Your task to perform on an android device: Open Google Maps Image 0: 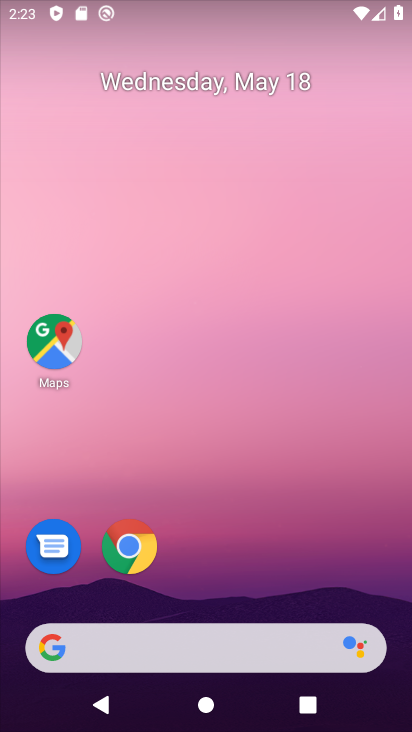
Step 0: drag from (276, 500) to (292, 5)
Your task to perform on an android device: Open Google Maps Image 1: 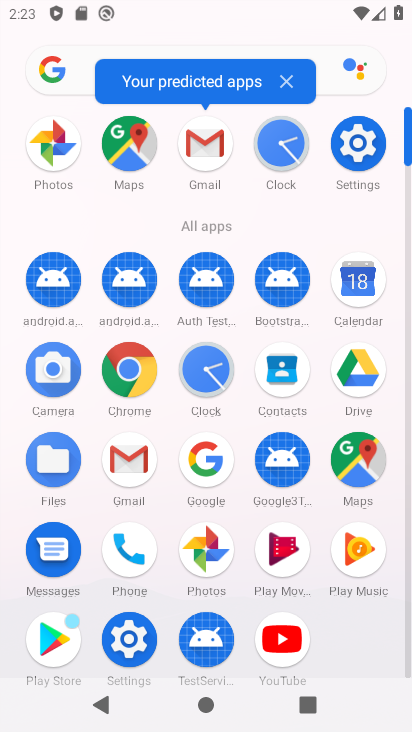
Step 1: click (124, 152)
Your task to perform on an android device: Open Google Maps Image 2: 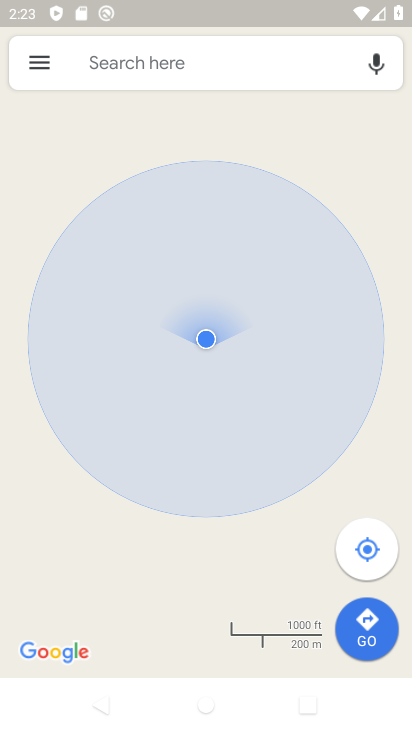
Step 2: task complete